Your task to perform on an android device: Open settings on Google Maps Image 0: 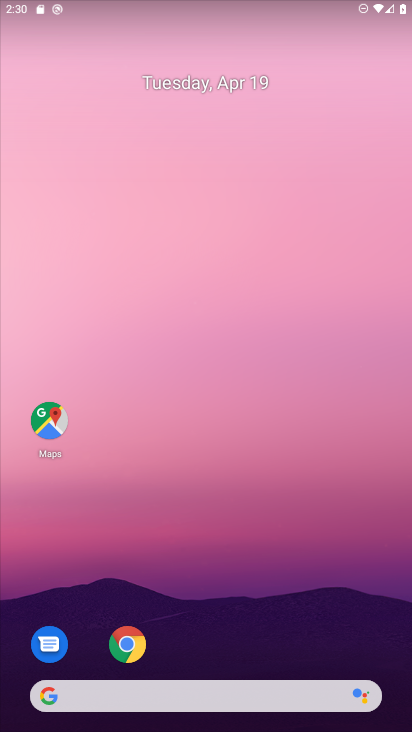
Step 0: click (45, 420)
Your task to perform on an android device: Open settings on Google Maps Image 1: 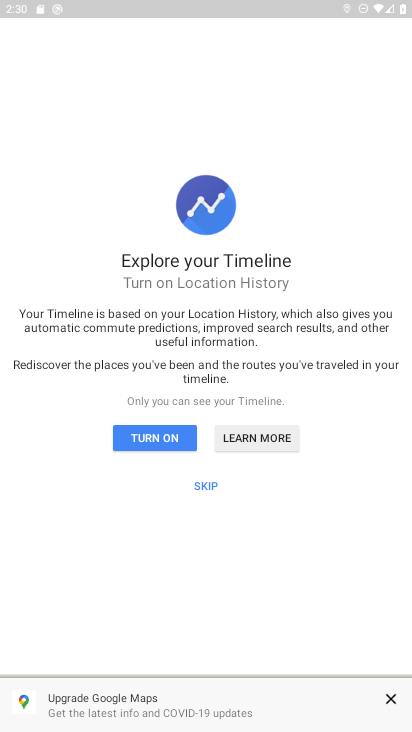
Step 1: press back button
Your task to perform on an android device: Open settings on Google Maps Image 2: 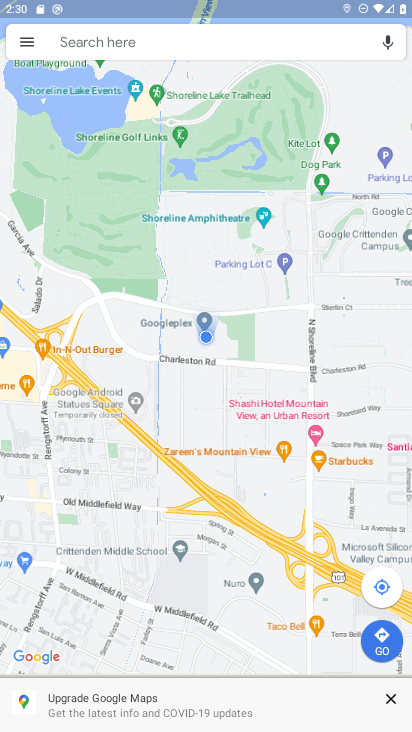
Step 2: click (22, 36)
Your task to perform on an android device: Open settings on Google Maps Image 3: 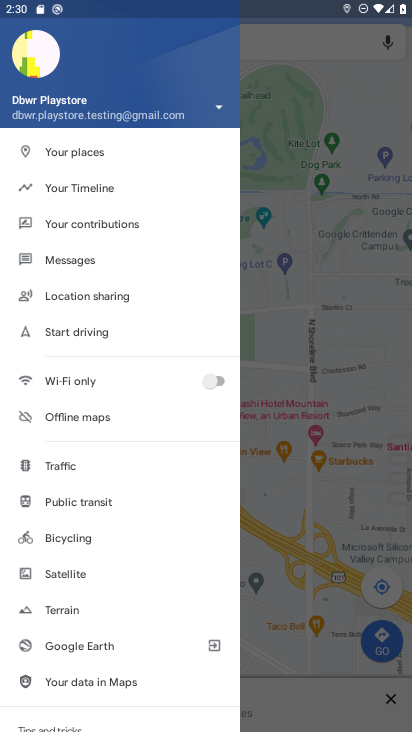
Step 3: drag from (132, 673) to (64, 90)
Your task to perform on an android device: Open settings on Google Maps Image 4: 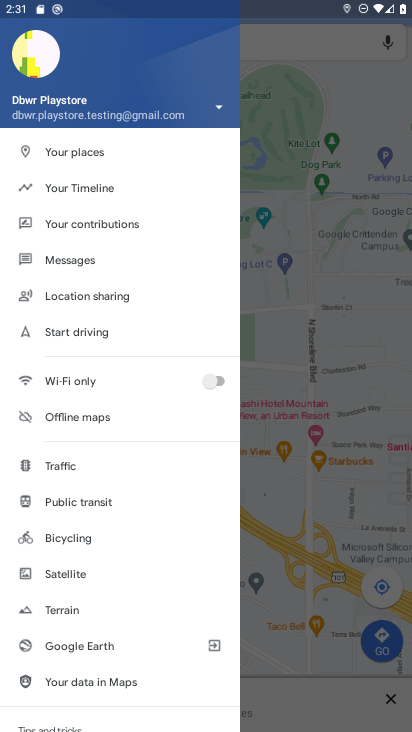
Step 4: drag from (90, 570) to (46, 73)
Your task to perform on an android device: Open settings on Google Maps Image 5: 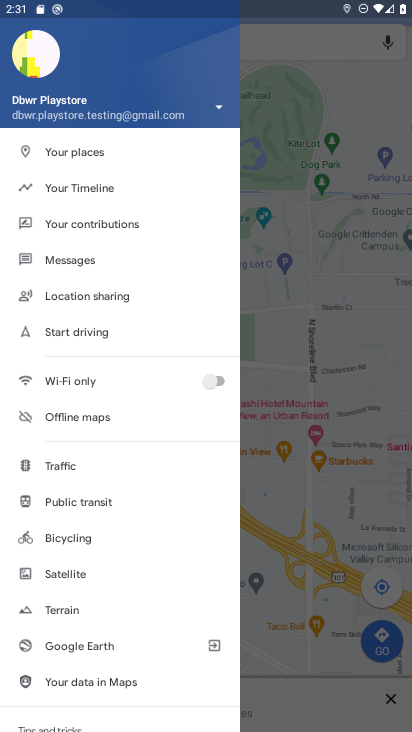
Step 5: drag from (58, 689) to (79, 219)
Your task to perform on an android device: Open settings on Google Maps Image 6: 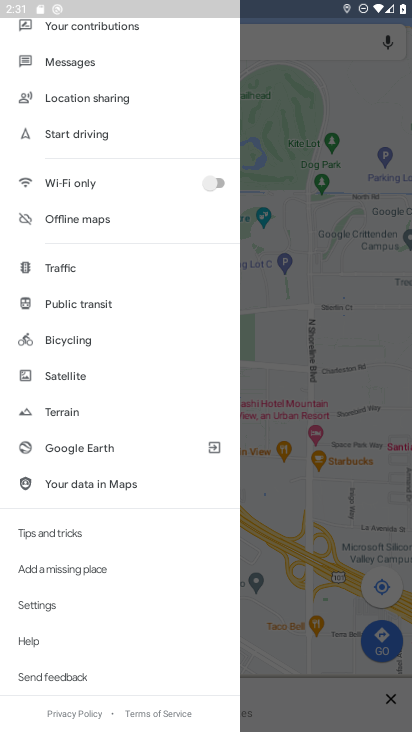
Step 6: click (25, 607)
Your task to perform on an android device: Open settings on Google Maps Image 7: 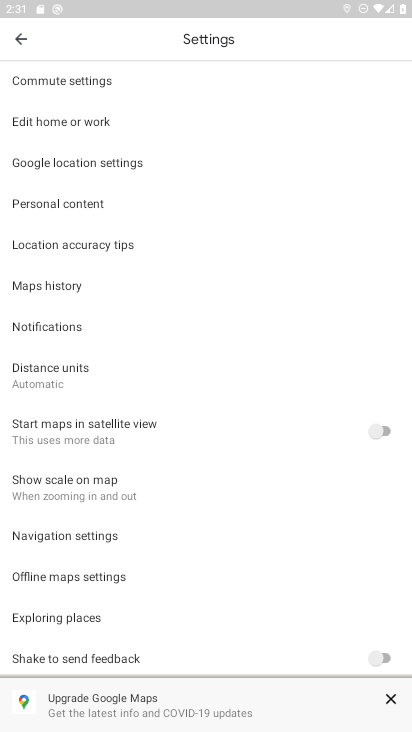
Step 7: task complete